Your task to perform on an android device: change text size in settings app Image 0: 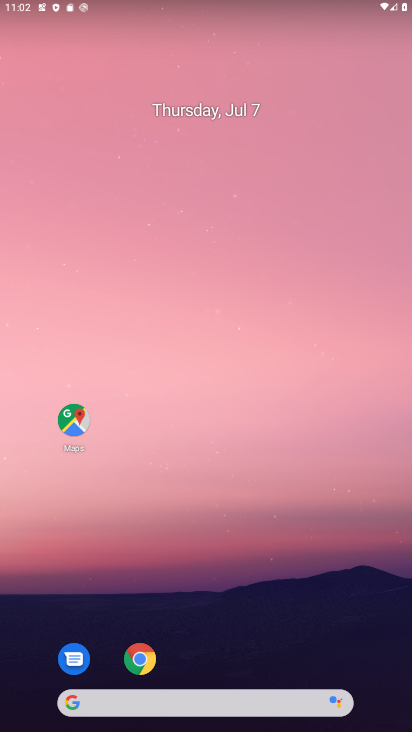
Step 0: drag from (214, 665) to (227, 45)
Your task to perform on an android device: change text size in settings app Image 1: 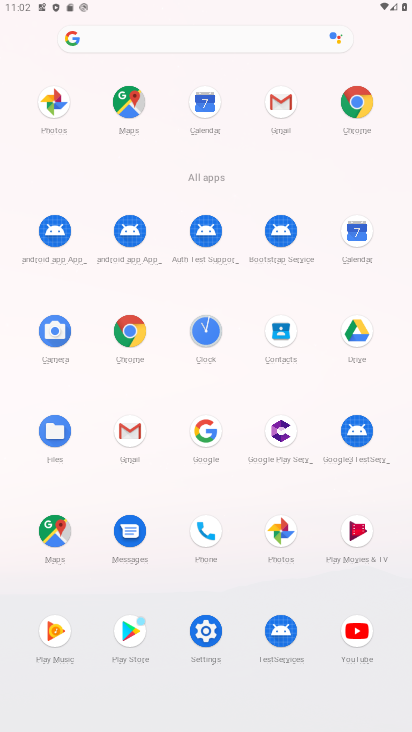
Step 1: click (202, 624)
Your task to perform on an android device: change text size in settings app Image 2: 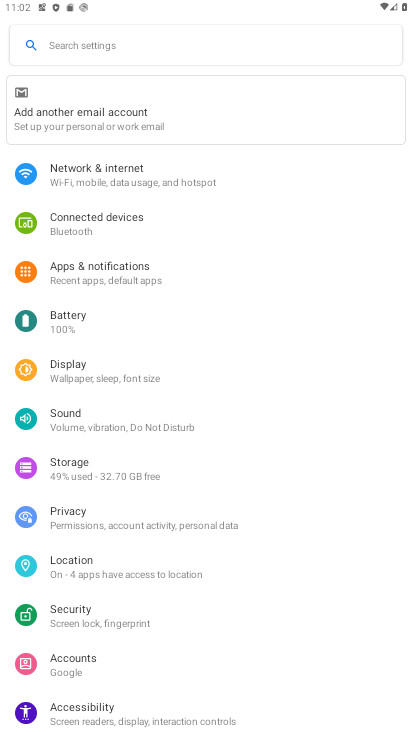
Step 2: click (95, 361)
Your task to perform on an android device: change text size in settings app Image 3: 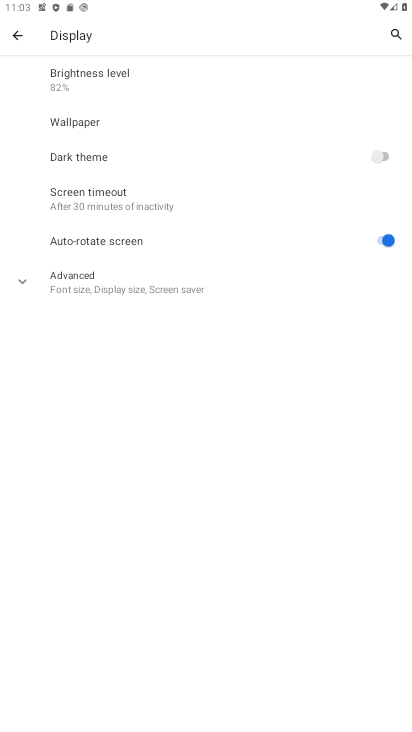
Step 3: click (24, 278)
Your task to perform on an android device: change text size in settings app Image 4: 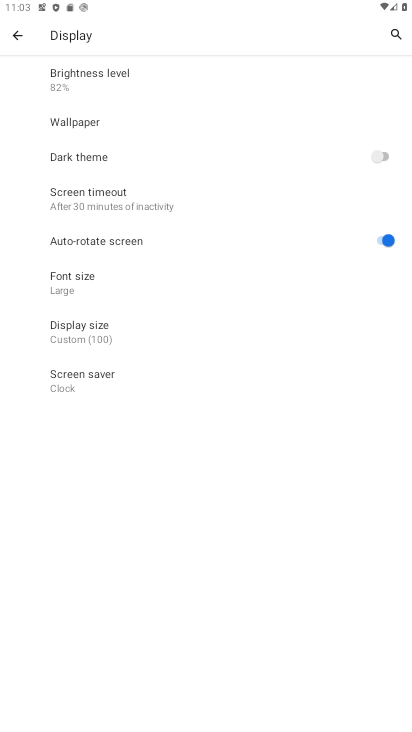
Step 4: click (103, 279)
Your task to perform on an android device: change text size in settings app Image 5: 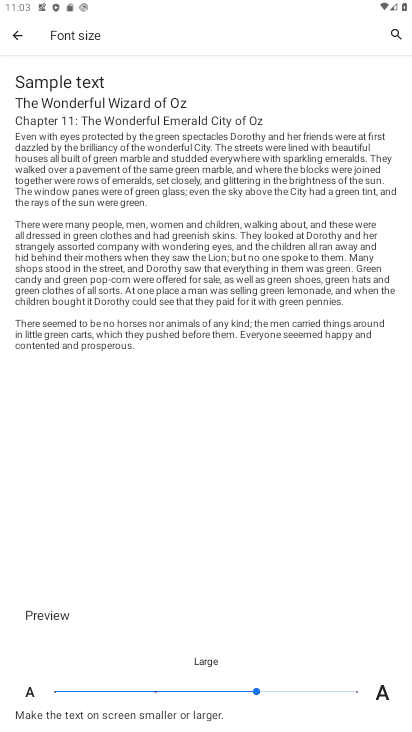
Step 5: click (354, 689)
Your task to perform on an android device: change text size in settings app Image 6: 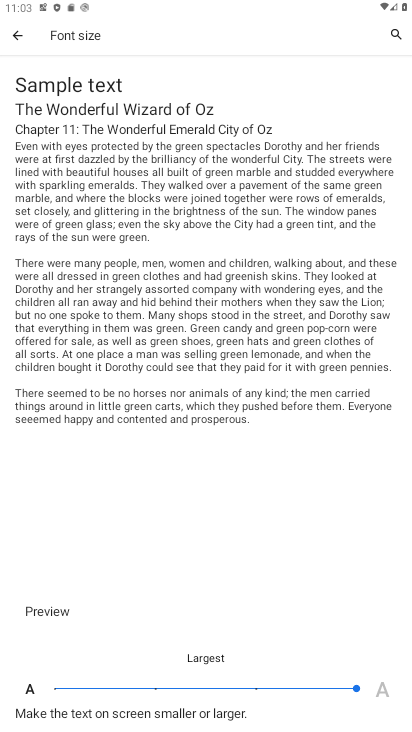
Step 6: task complete